Your task to perform on an android device: What is the news today? Image 0: 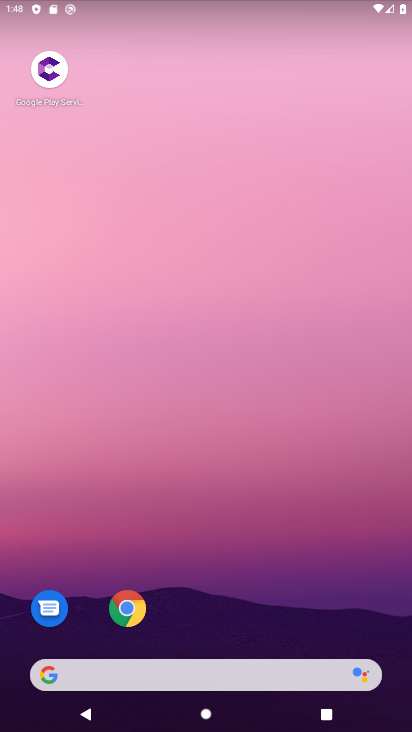
Step 0: drag from (0, 473) to (399, 371)
Your task to perform on an android device: What is the news today? Image 1: 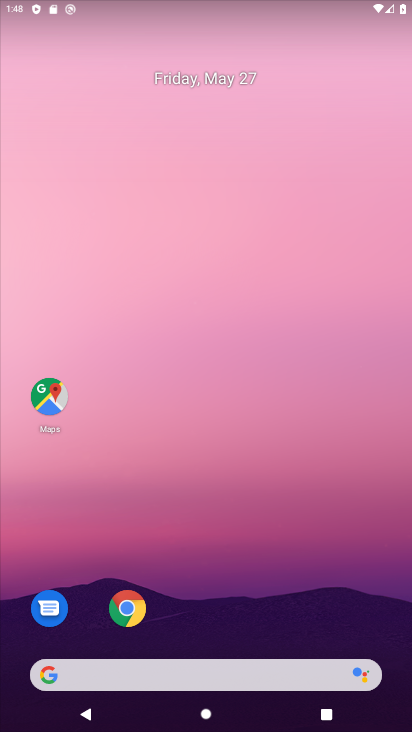
Step 1: task complete